Your task to perform on an android device: Is it going to rain today? Image 0: 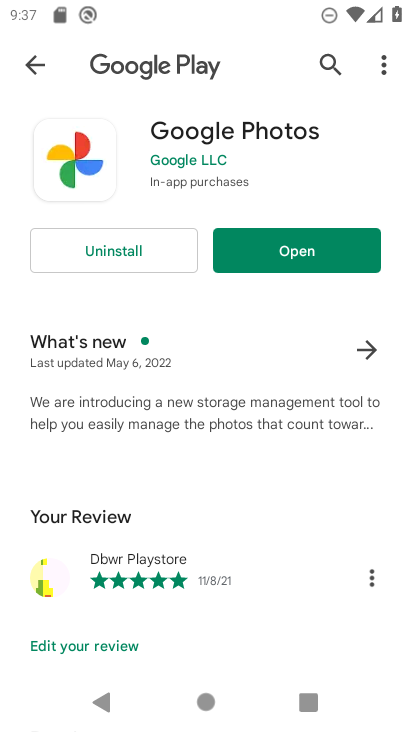
Step 0: press home button
Your task to perform on an android device: Is it going to rain today? Image 1: 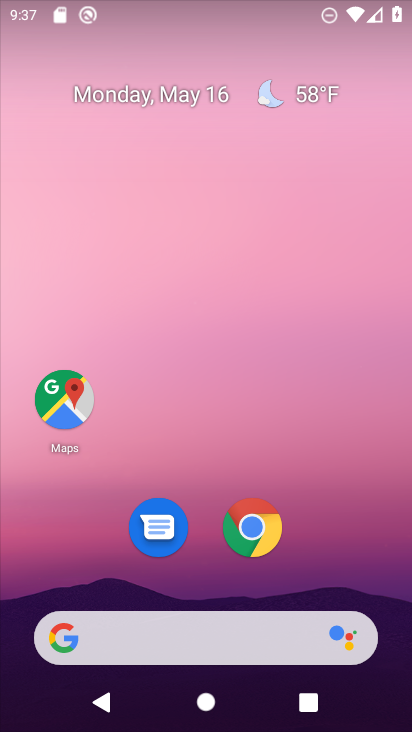
Step 1: click (310, 84)
Your task to perform on an android device: Is it going to rain today? Image 2: 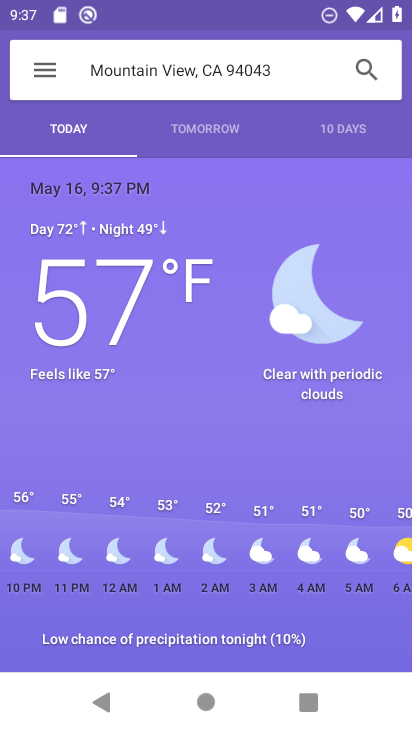
Step 2: task complete